Your task to perform on an android device: Open calendar and show me the third week of next month Image 0: 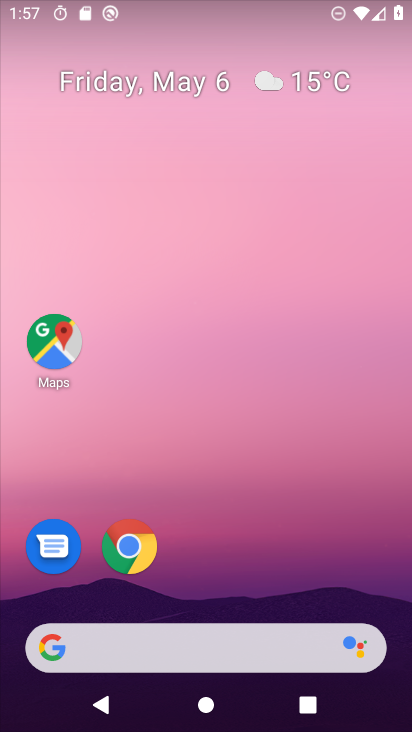
Step 0: drag from (288, 536) to (275, 73)
Your task to perform on an android device: Open calendar and show me the third week of next month Image 1: 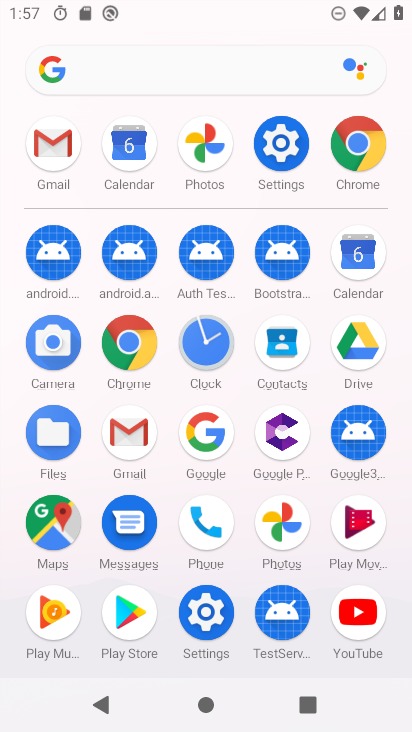
Step 1: click (140, 153)
Your task to perform on an android device: Open calendar and show me the third week of next month Image 2: 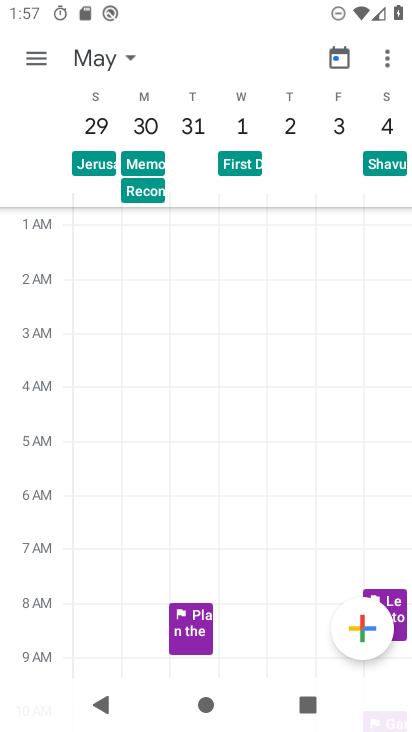
Step 2: click (110, 55)
Your task to perform on an android device: Open calendar and show me the third week of next month Image 3: 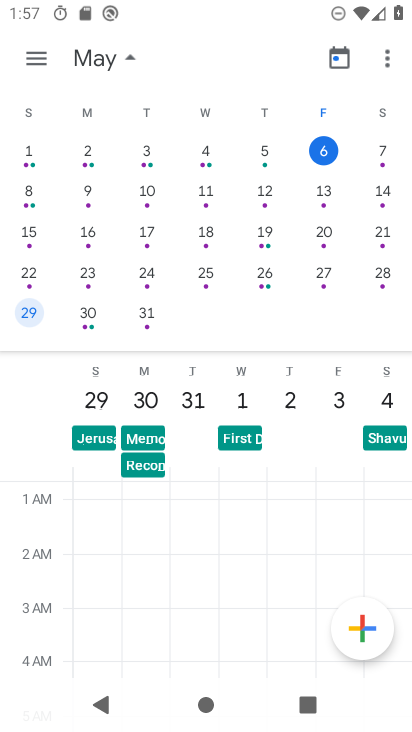
Step 3: drag from (340, 240) to (7, 197)
Your task to perform on an android device: Open calendar and show me the third week of next month Image 4: 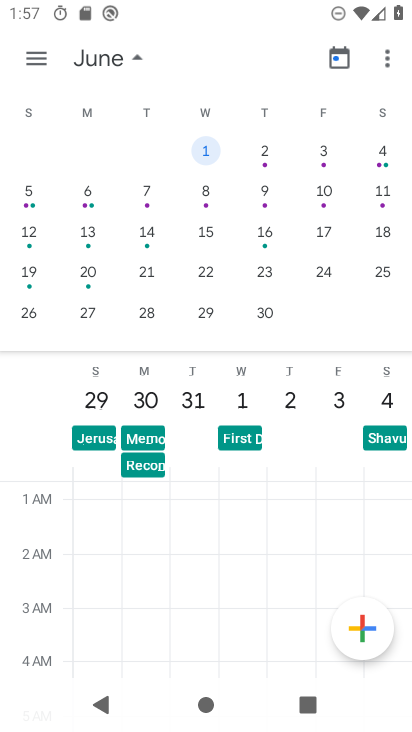
Step 4: click (141, 235)
Your task to perform on an android device: Open calendar and show me the third week of next month Image 5: 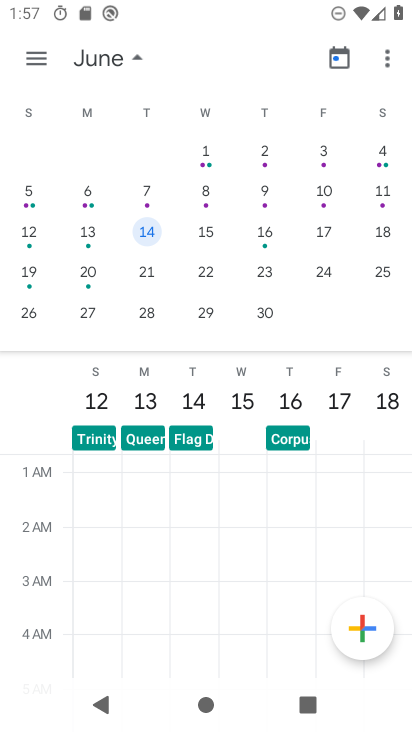
Step 5: task complete